Your task to perform on an android device: open a new tab in the chrome app Image 0: 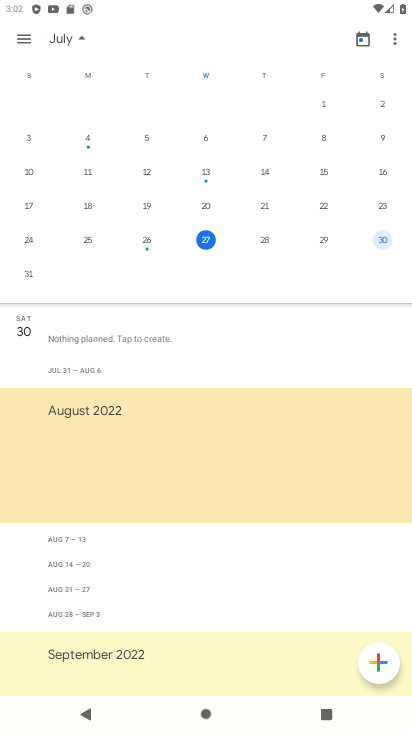
Step 0: press home button
Your task to perform on an android device: open a new tab in the chrome app Image 1: 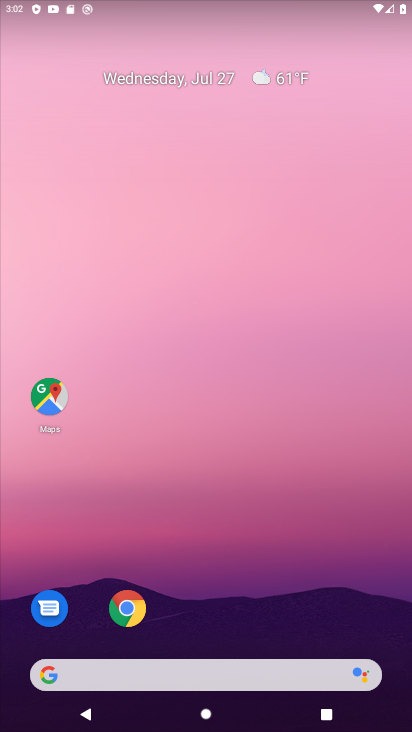
Step 1: click (127, 619)
Your task to perform on an android device: open a new tab in the chrome app Image 2: 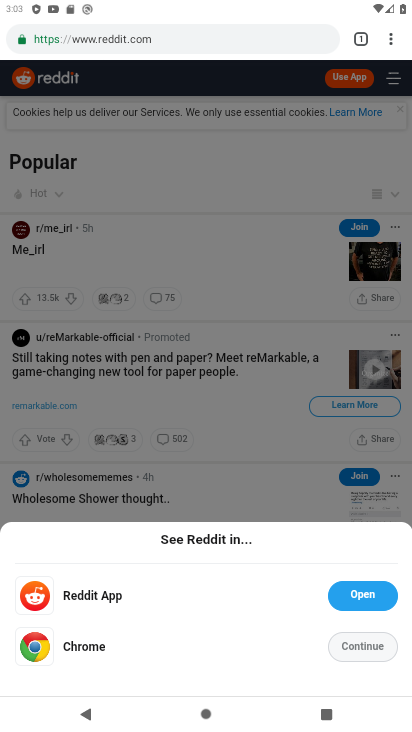
Step 2: click (382, 33)
Your task to perform on an android device: open a new tab in the chrome app Image 3: 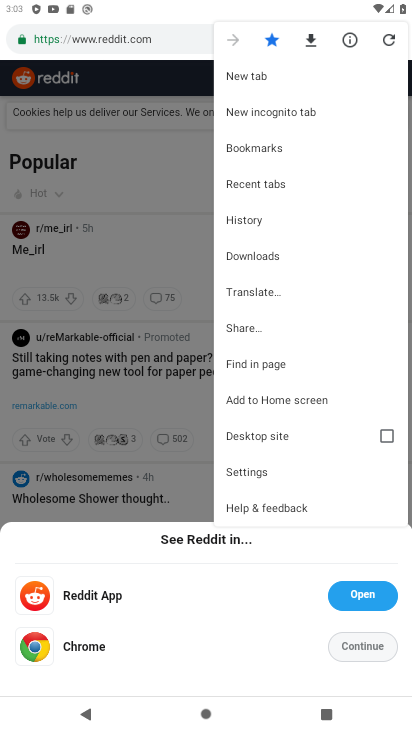
Step 3: click (258, 81)
Your task to perform on an android device: open a new tab in the chrome app Image 4: 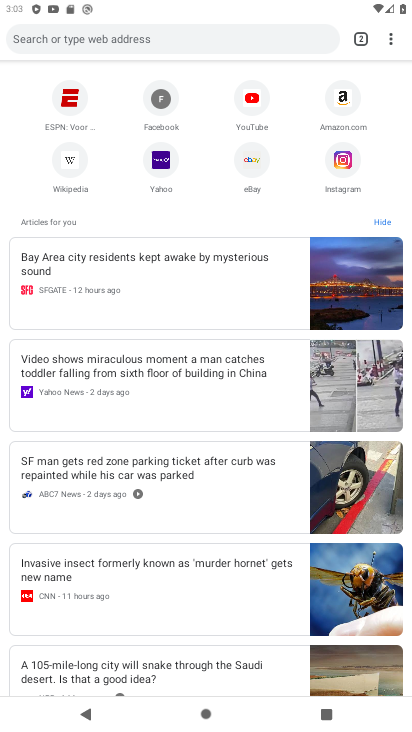
Step 4: task complete